Your task to perform on an android device: Turn on the flashlight Image 0: 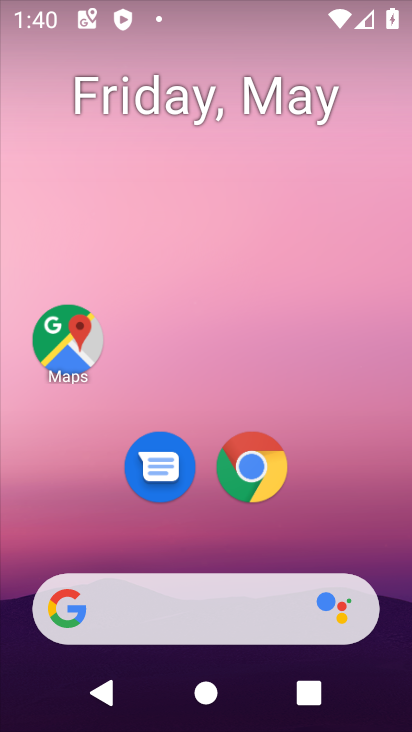
Step 0: drag from (333, 522) to (315, 58)
Your task to perform on an android device: Turn on the flashlight Image 1: 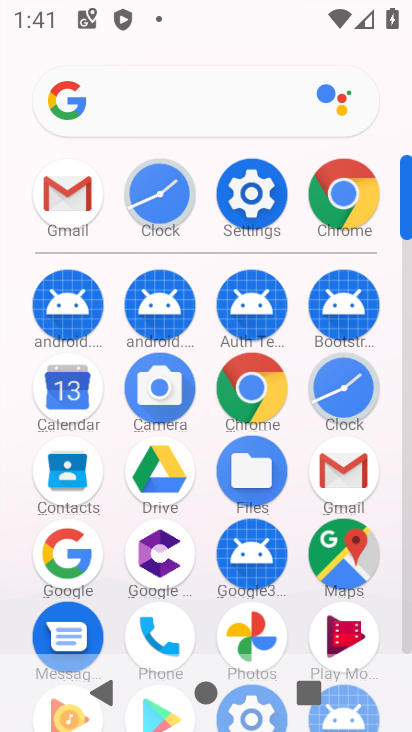
Step 1: click (248, 194)
Your task to perform on an android device: Turn on the flashlight Image 2: 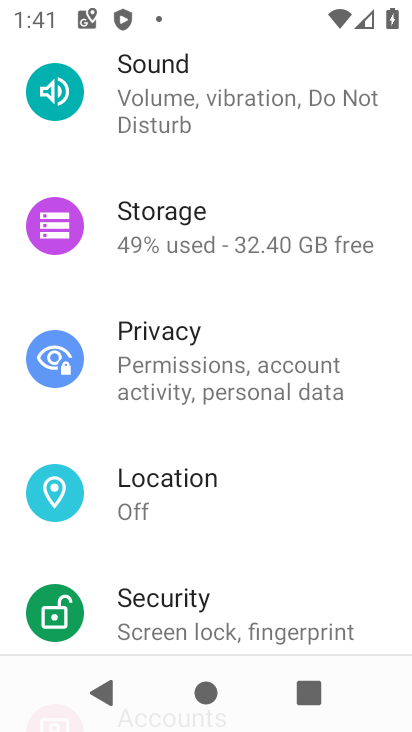
Step 2: drag from (272, 193) to (252, 370)
Your task to perform on an android device: Turn on the flashlight Image 3: 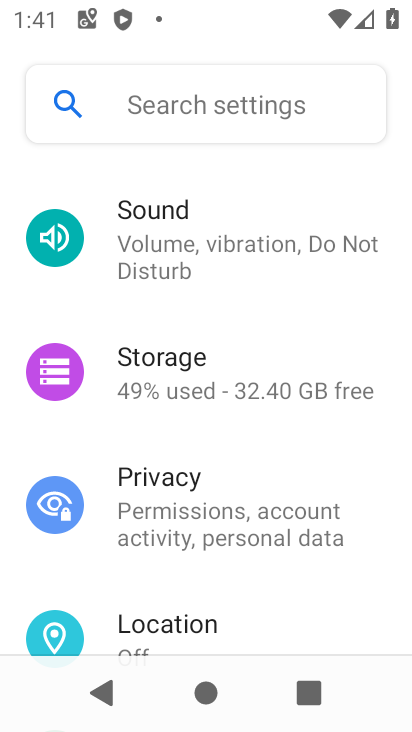
Step 3: drag from (247, 293) to (222, 441)
Your task to perform on an android device: Turn on the flashlight Image 4: 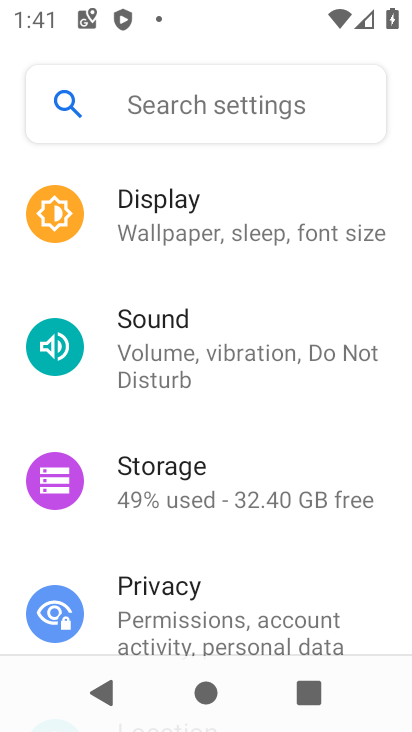
Step 4: drag from (220, 252) to (211, 382)
Your task to perform on an android device: Turn on the flashlight Image 5: 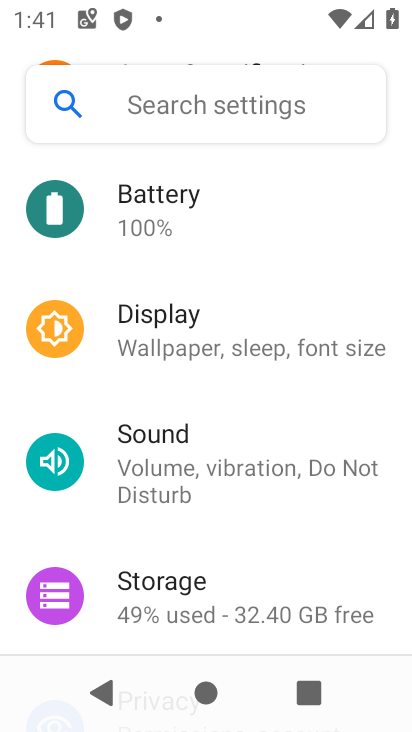
Step 5: drag from (224, 245) to (221, 394)
Your task to perform on an android device: Turn on the flashlight Image 6: 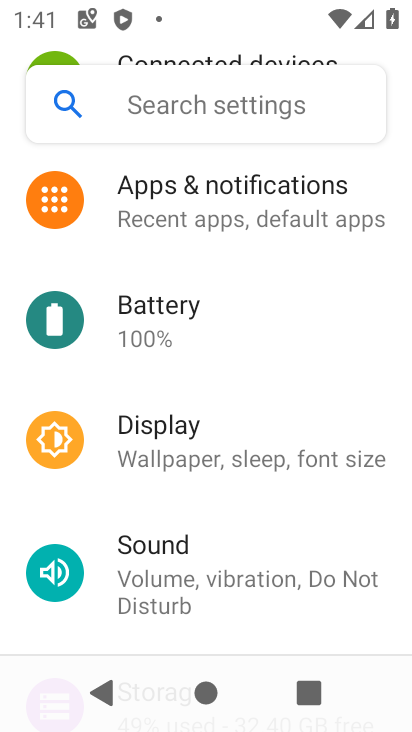
Step 6: click (211, 450)
Your task to perform on an android device: Turn on the flashlight Image 7: 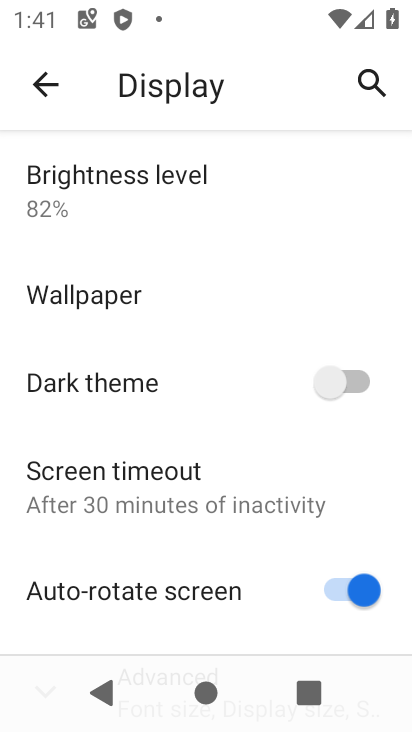
Step 7: drag from (134, 558) to (234, 304)
Your task to perform on an android device: Turn on the flashlight Image 8: 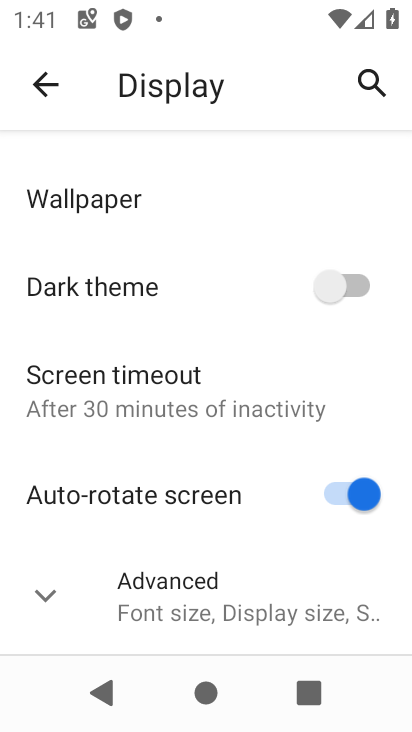
Step 8: drag from (210, 270) to (229, 408)
Your task to perform on an android device: Turn on the flashlight Image 9: 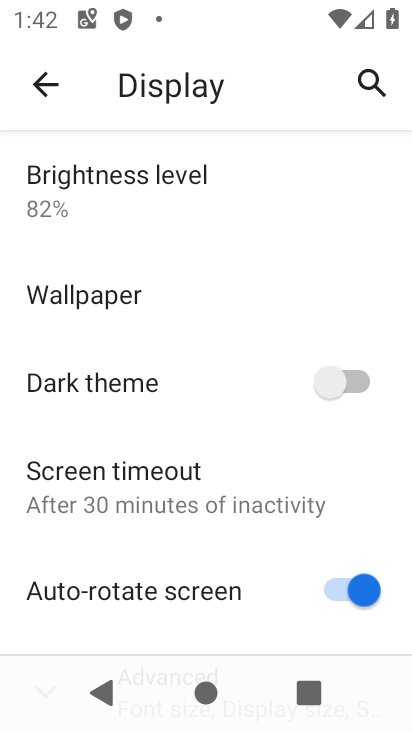
Step 9: drag from (170, 552) to (243, 351)
Your task to perform on an android device: Turn on the flashlight Image 10: 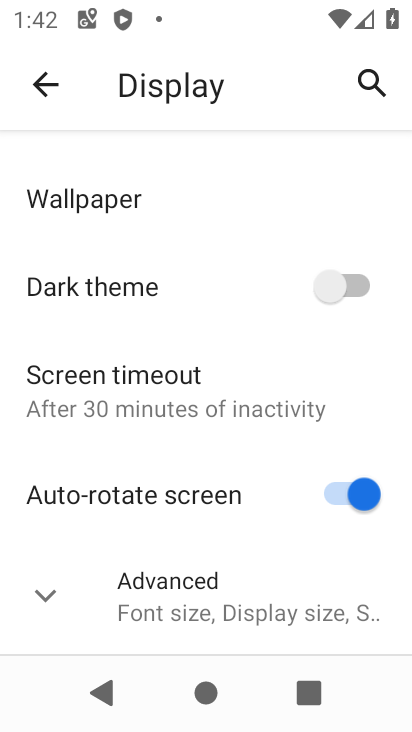
Step 10: click (166, 599)
Your task to perform on an android device: Turn on the flashlight Image 11: 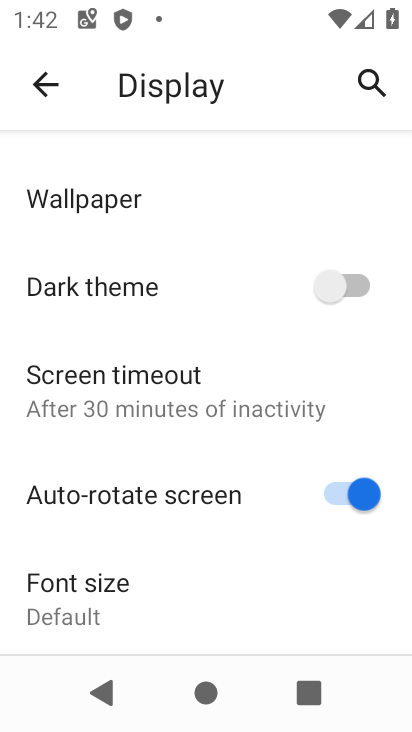
Step 11: task complete